Your task to perform on an android device: toggle notification dots Image 0: 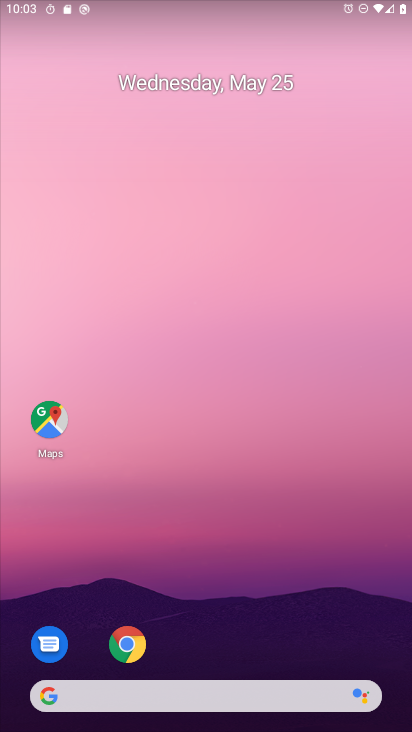
Step 0: drag from (348, 617) to (313, 81)
Your task to perform on an android device: toggle notification dots Image 1: 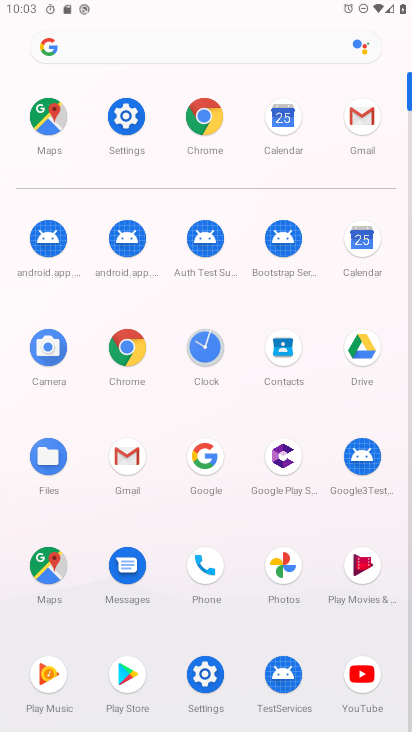
Step 1: click (202, 684)
Your task to perform on an android device: toggle notification dots Image 2: 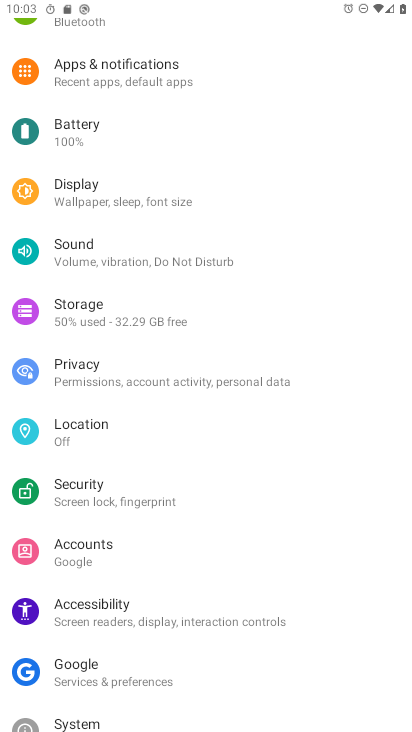
Step 2: click (170, 69)
Your task to perform on an android device: toggle notification dots Image 3: 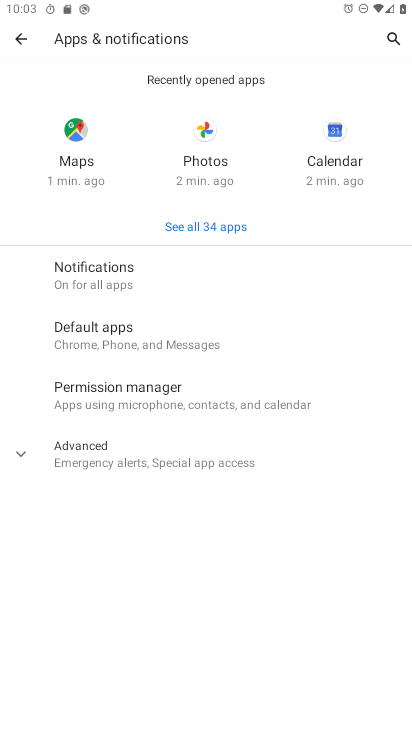
Step 3: click (131, 270)
Your task to perform on an android device: toggle notification dots Image 4: 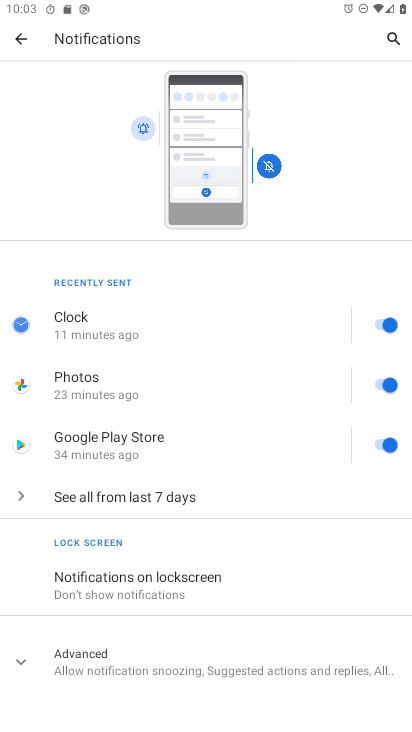
Step 4: click (191, 672)
Your task to perform on an android device: toggle notification dots Image 5: 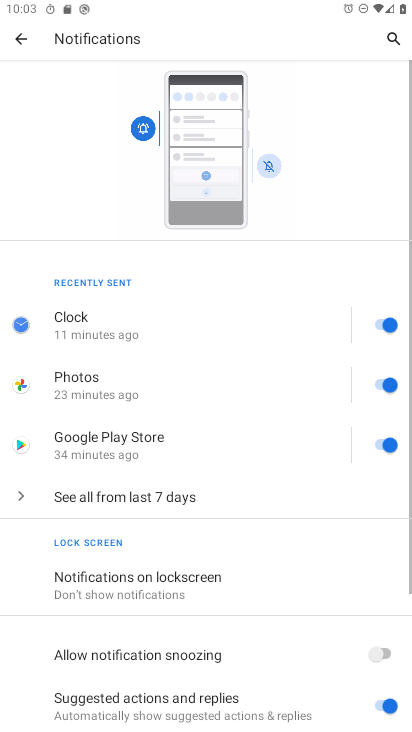
Step 5: drag from (191, 672) to (246, 294)
Your task to perform on an android device: toggle notification dots Image 6: 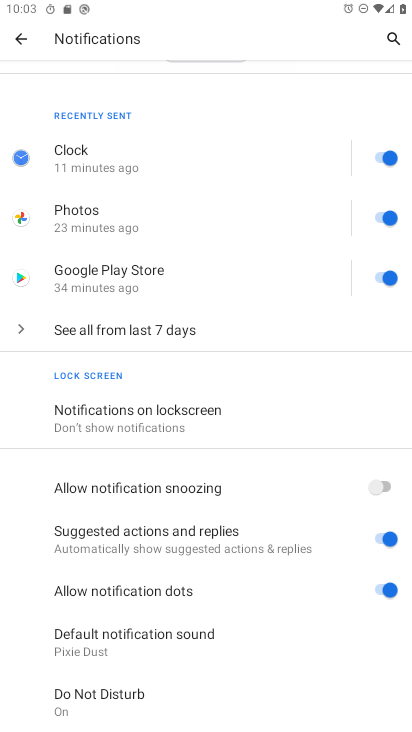
Step 6: click (298, 596)
Your task to perform on an android device: toggle notification dots Image 7: 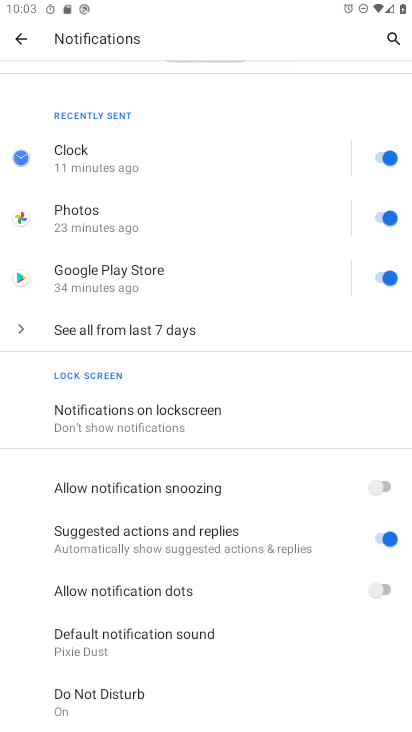
Step 7: task complete